Your task to perform on an android device: Open the Play Movies app and select the watchlist tab. Image 0: 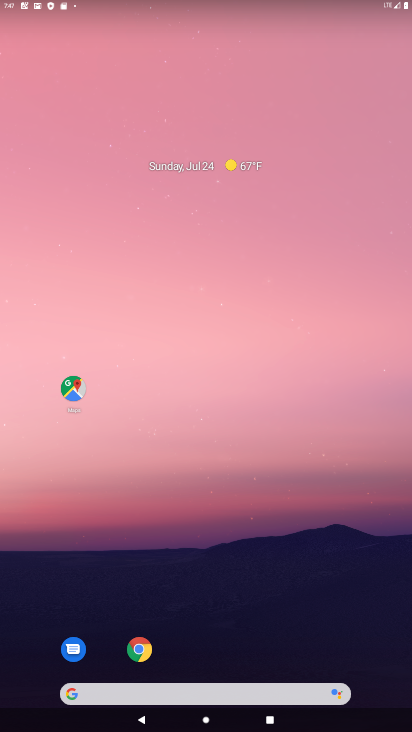
Step 0: click (81, 237)
Your task to perform on an android device: Open the Play Movies app and select the watchlist tab. Image 1: 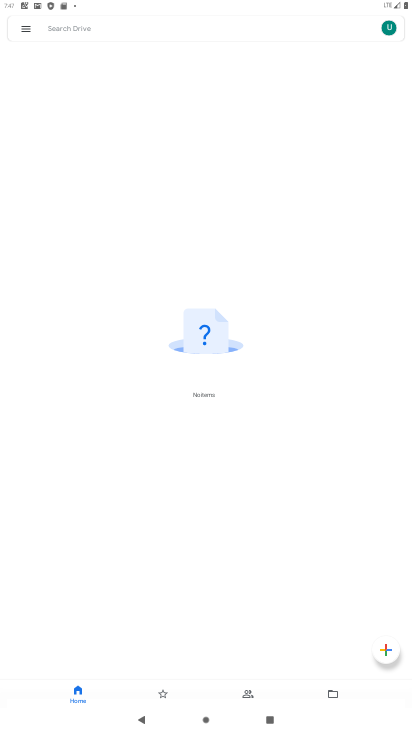
Step 1: press home button
Your task to perform on an android device: Open the Play Movies app and select the watchlist tab. Image 2: 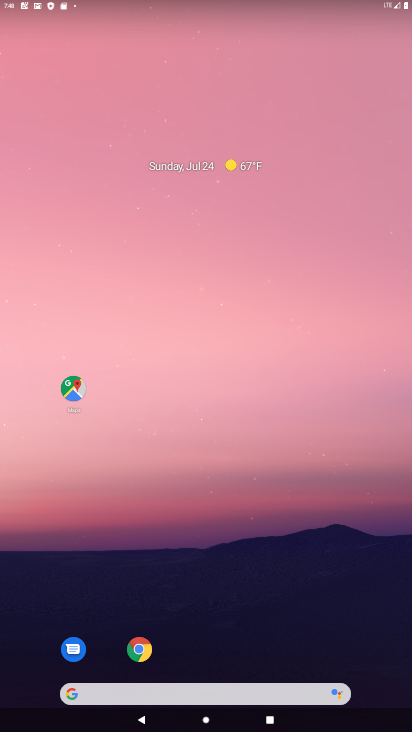
Step 2: drag from (200, 641) to (161, 16)
Your task to perform on an android device: Open the Play Movies app and select the watchlist tab. Image 3: 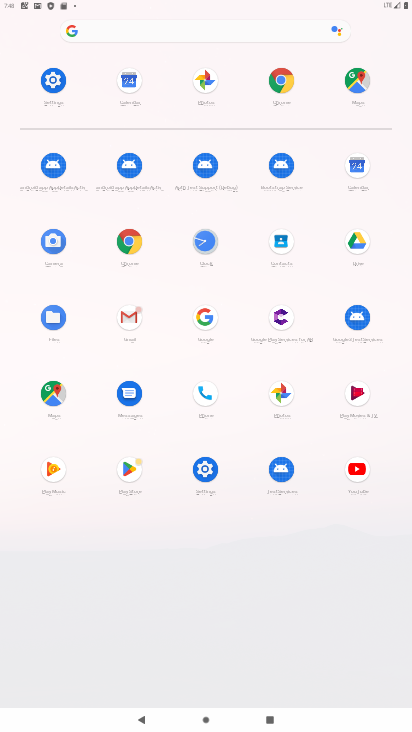
Step 3: click (360, 389)
Your task to perform on an android device: Open the Play Movies app and select the watchlist tab. Image 4: 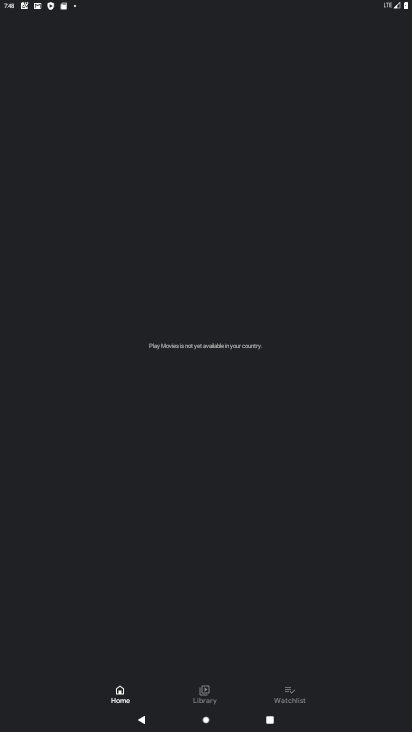
Step 4: click (299, 675)
Your task to perform on an android device: Open the Play Movies app and select the watchlist tab. Image 5: 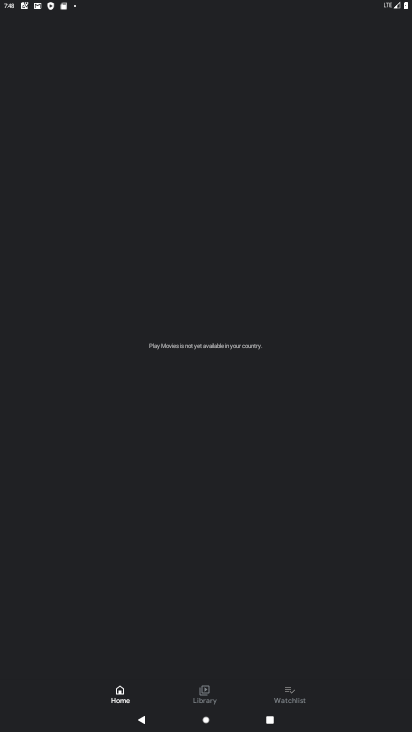
Step 5: click (298, 676)
Your task to perform on an android device: Open the Play Movies app and select the watchlist tab. Image 6: 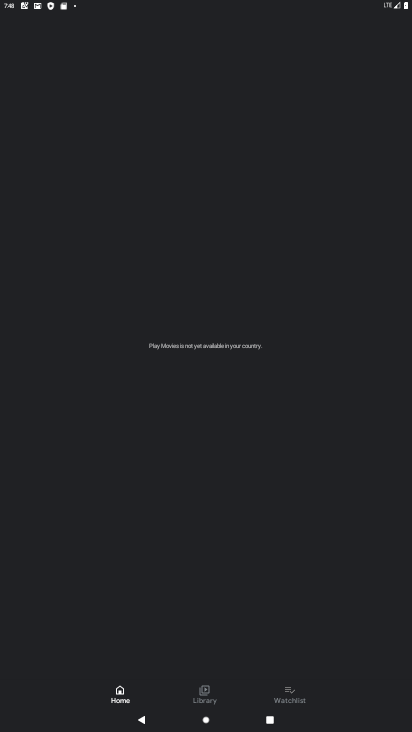
Step 6: click (292, 679)
Your task to perform on an android device: Open the Play Movies app and select the watchlist tab. Image 7: 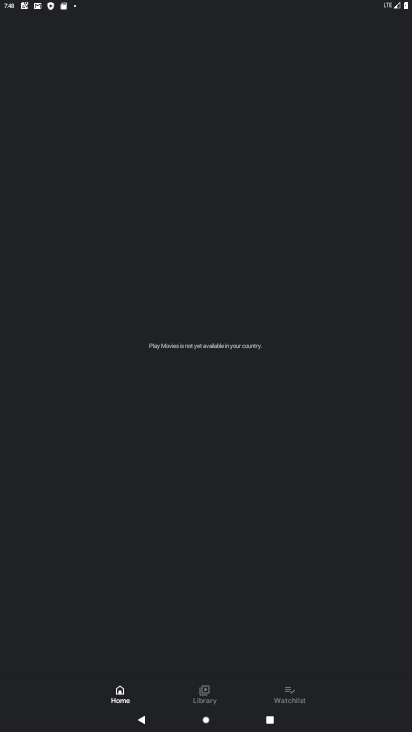
Step 7: click (292, 679)
Your task to perform on an android device: Open the Play Movies app and select the watchlist tab. Image 8: 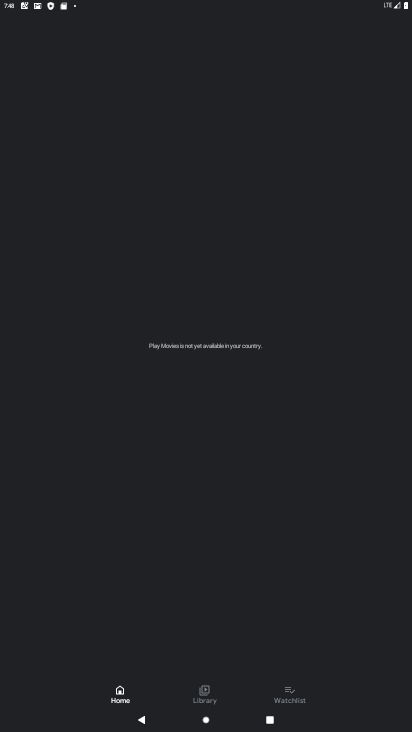
Step 8: click (287, 696)
Your task to perform on an android device: Open the Play Movies app and select the watchlist tab. Image 9: 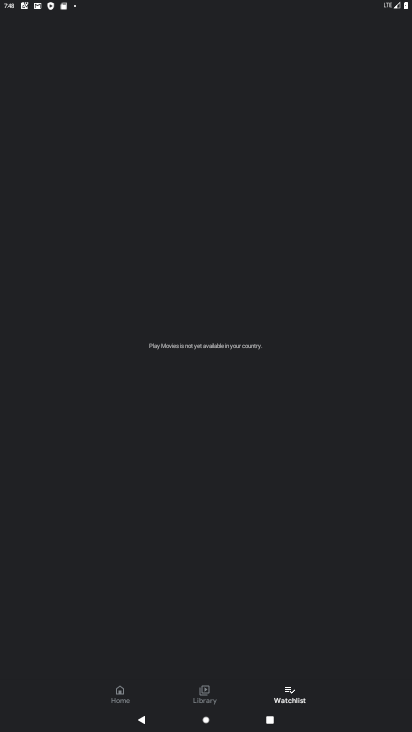
Step 9: task complete